Your task to perform on an android device: Open ESPN.com Image 0: 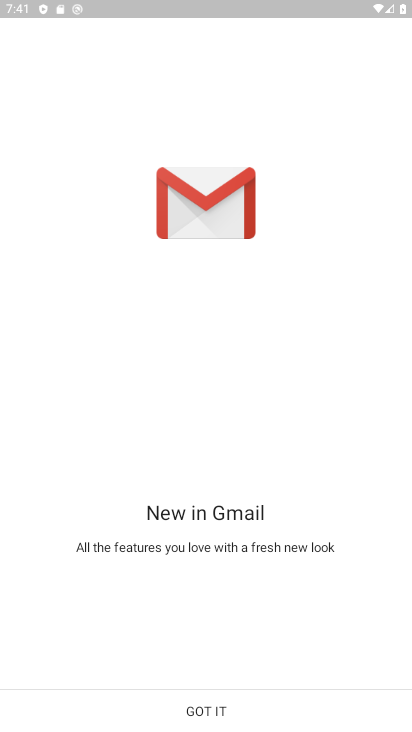
Step 0: press home button
Your task to perform on an android device: Open ESPN.com Image 1: 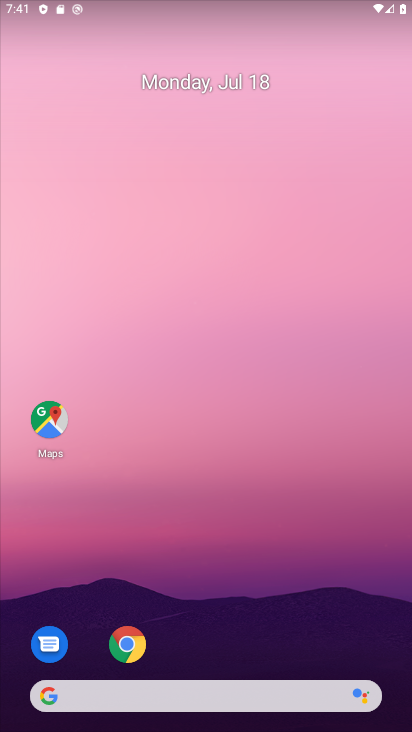
Step 1: click (129, 644)
Your task to perform on an android device: Open ESPN.com Image 2: 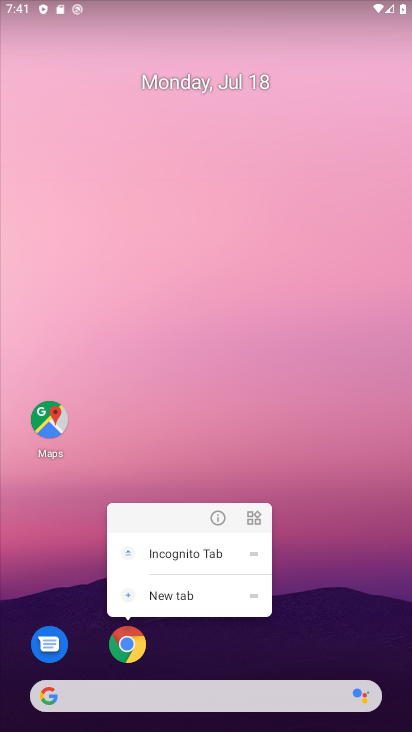
Step 2: click (128, 638)
Your task to perform on an android device: Open ESPN.com Image 3: 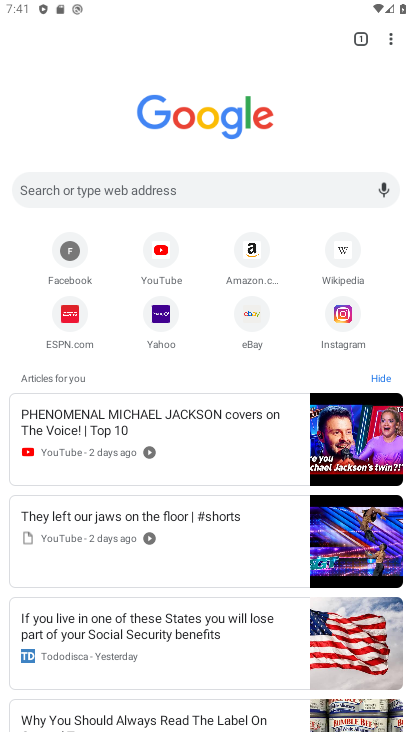
Step 3: click (69, 308)
Your task to perform on an android device: Open ESPN.com Image 4: 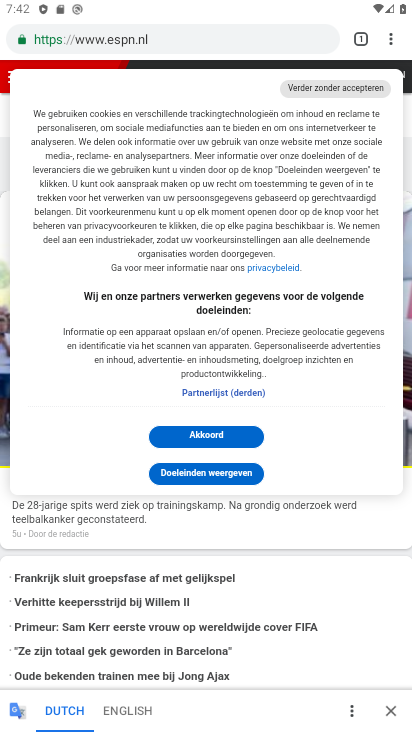
Step 4: drag from (230, 629) to (261, 351)
Your task to perform on an android device: Open ESPN.com Image 5: 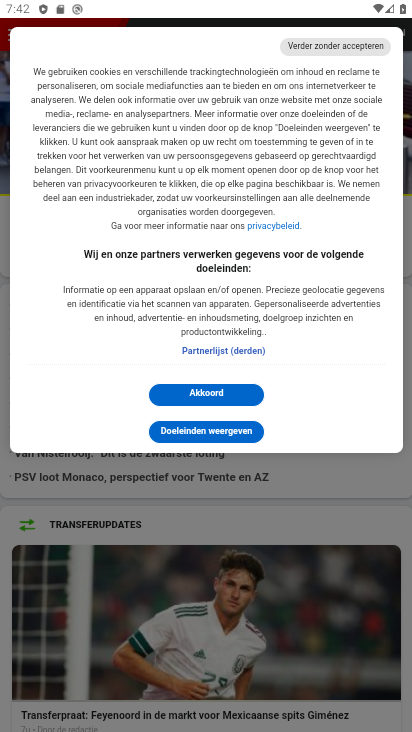
Step 5: click (211, 392)
Your task to perform on an android device: Open ESPN.com Image 6: 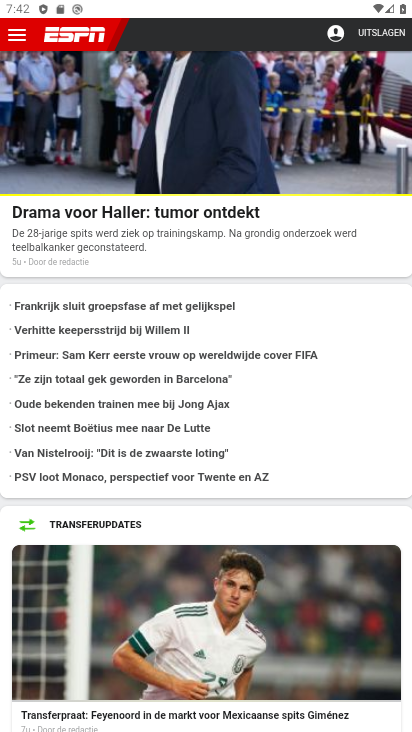
Step 6: task complete